Your task to perform on an android device: turn off notifications in google photos Image 0: 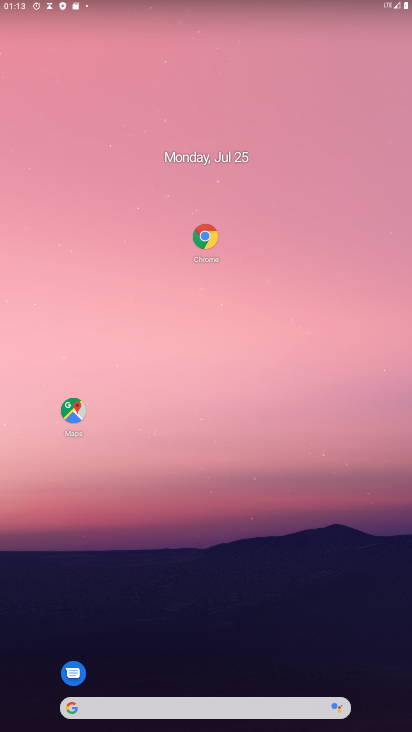
Step 0: drag from (292, 689) to (346, 4)
Your task to perform on an android device: turn off notifications in google photos Image 1: 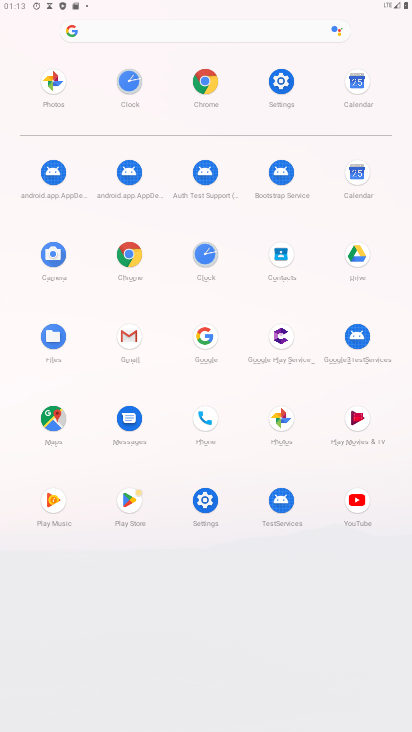
Step 1: click (276, 414)
Your task to perform on an android device: turn off notifications in google photos Image 2: 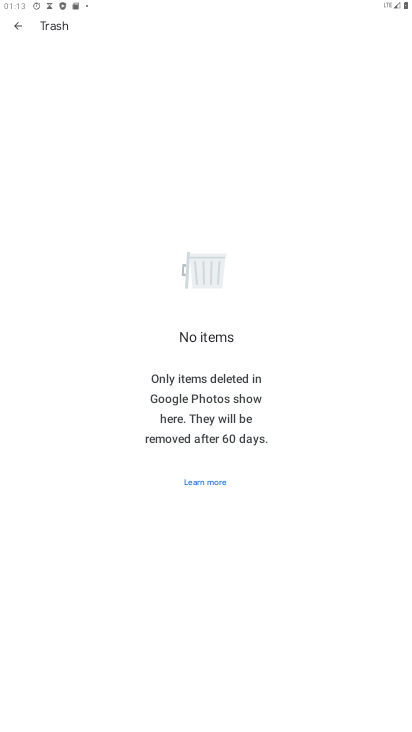
Step 2: press back button
Your task to perform on an android device: turn off notifications in google photos Image 3: 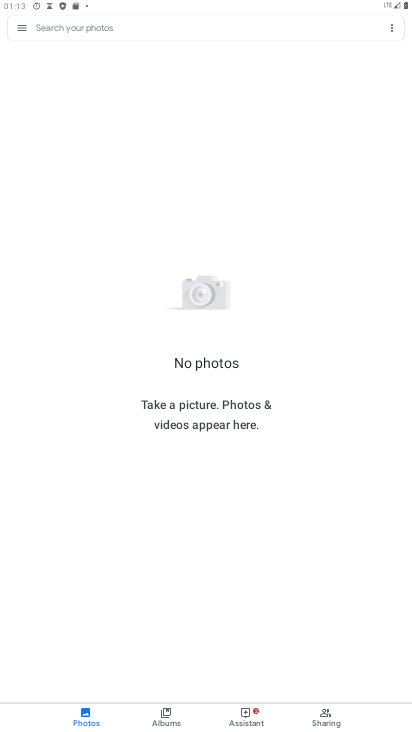
Step 3: click (21, 26)
Your task to perform on an android device: turn off notifications in google photos Image 4: 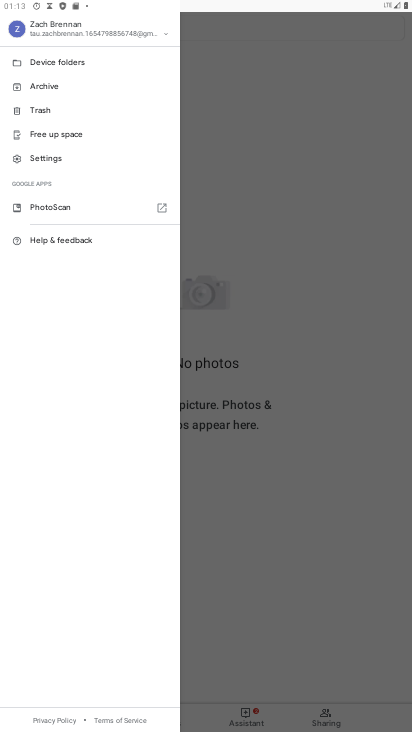
Step 4: click (64, 154)
Your task to perform on an android device: turn off notifications in google photos Image 5: 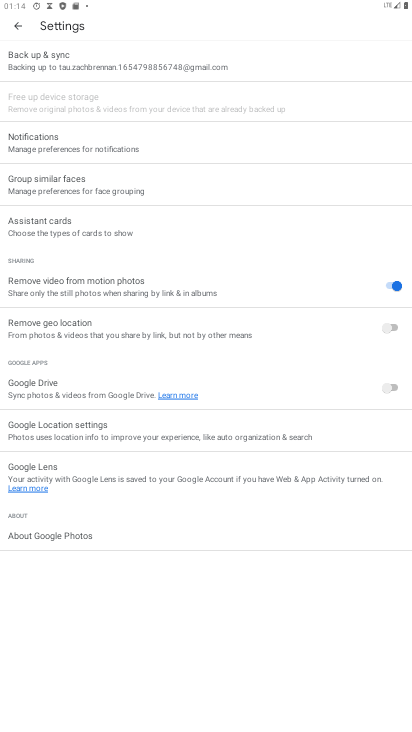
Step 5: click (117, 152)
Your task to perform on an android device: turn off notifications in google photos Image 6: 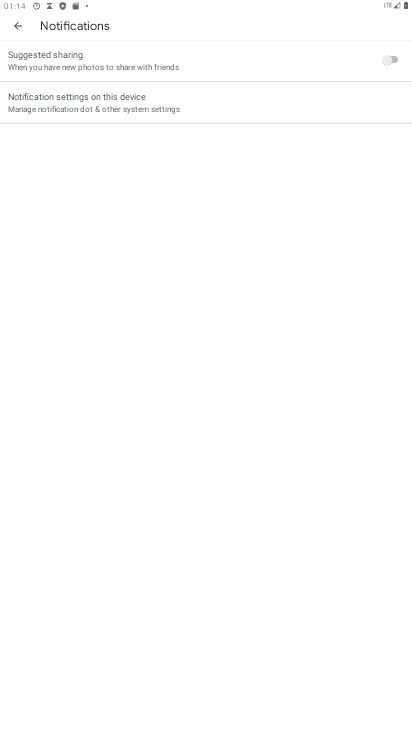
Step 6: click (144, 112)
Your task to perform on an android device: turn off notifications in google photos Image 7: 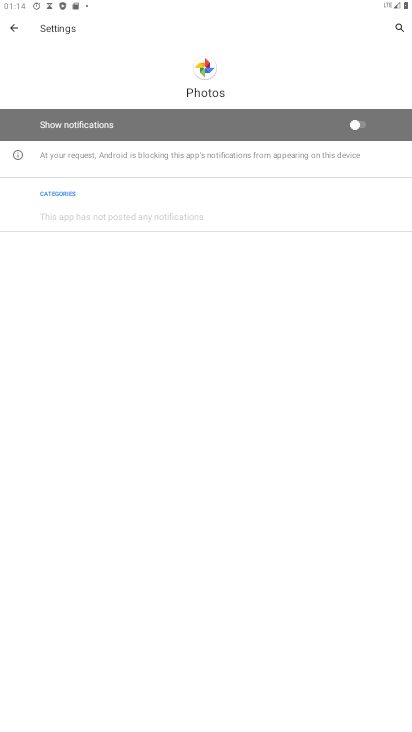
Step 7: task complete